Your task to perform on an android device: Search for pizza restaurants on Maps Image 0: 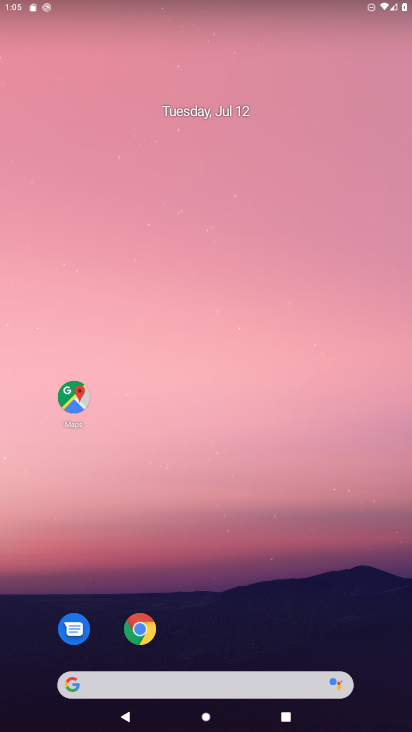
Step 0: click (75, 391)
Your task to perform on an android device: Search for pizza restaurants on Maps Image 1: 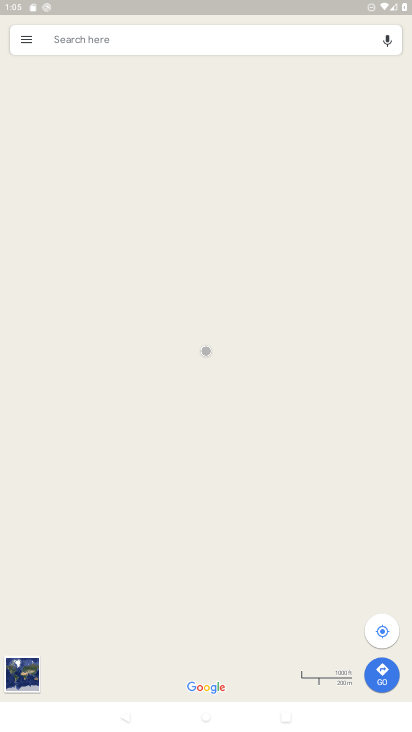
Step 1: click (91, 37)
Your task to perform on an android device: Search for pizza restaurants on Maps Image 2: 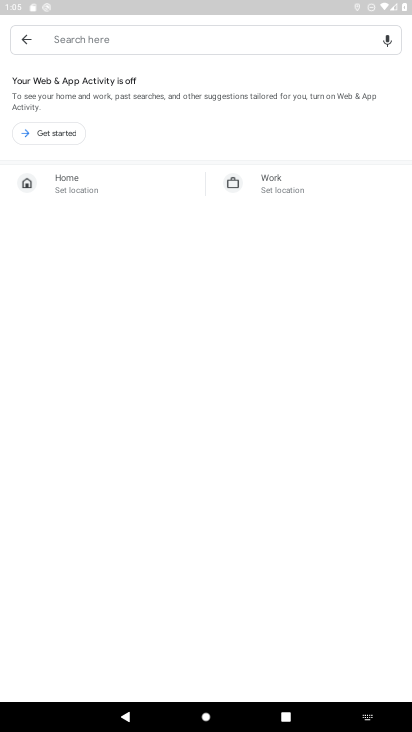
Step 2: type "pizza"
Your task to perform on an android device: Search for pizza restaurants on Maps Image 3: 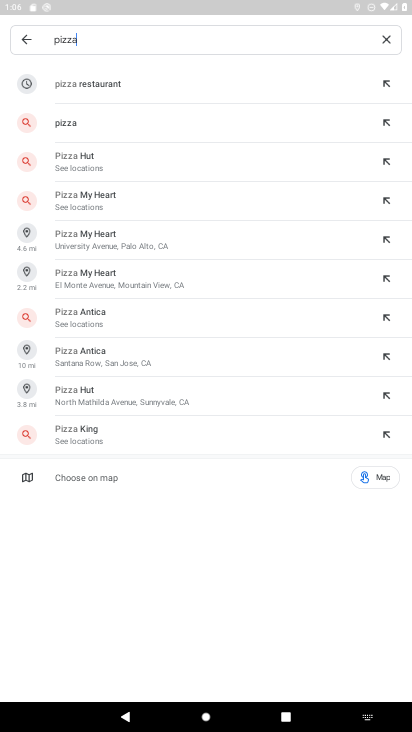
Step 3: click (128, 83)
Your task to perform on an android device: Search for pizza restaurants on Maps Image 4: 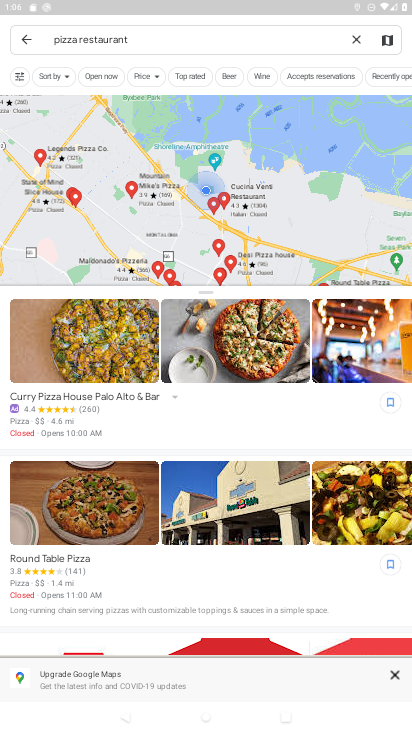
Step 4: task complete